Your task to perform on an android device: Open CNN.com Image 0: 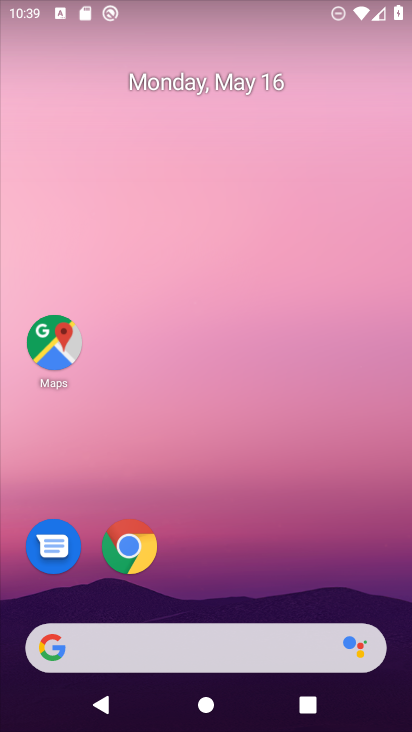
Step 0: click (128, 550)
Your task to perform on an android device: Open CNN.com Image 1: 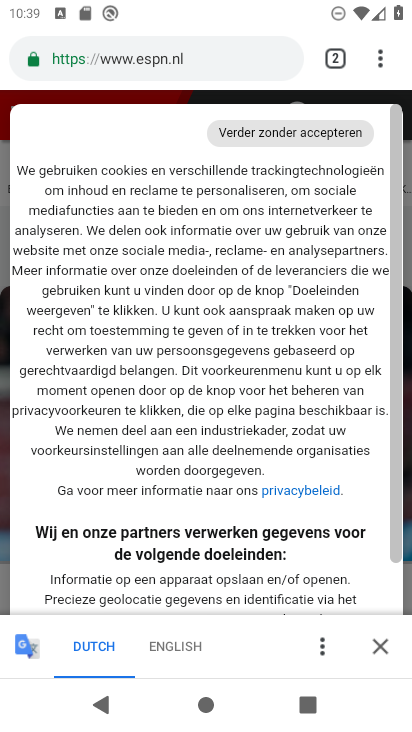
Step 1: click (233, 65)
Your task to perform on an android device: Open CNN.com Image 2: 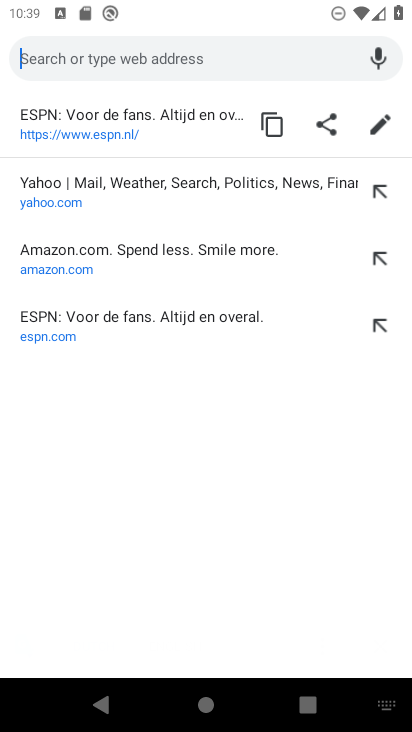
Step 2: type "cnn.com"
Your task to perform on an android device: Open CNN.com Image 3: 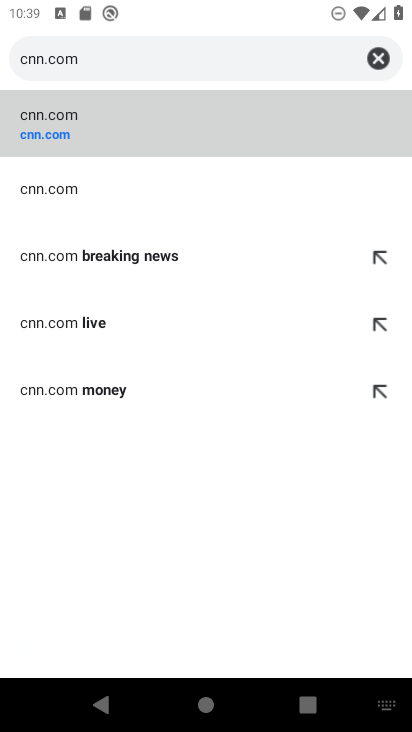
Step 3: click (212, 156)
Your task to perform on an android device: Open CNN.com Image 4: 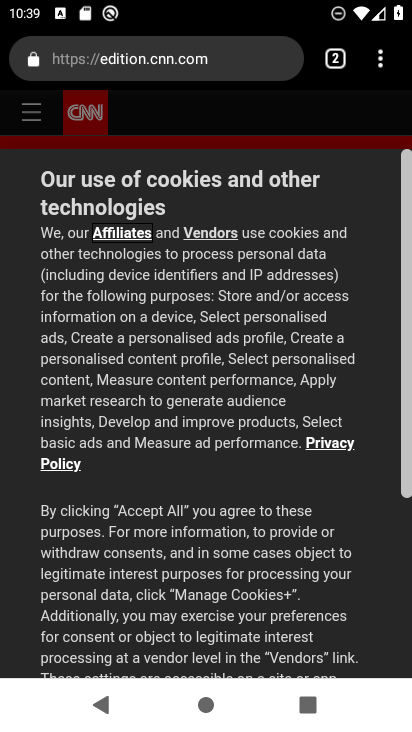
Step 4: task complete